Your task to perform on an android device: move an email to a new category in the gmail app Image 0: 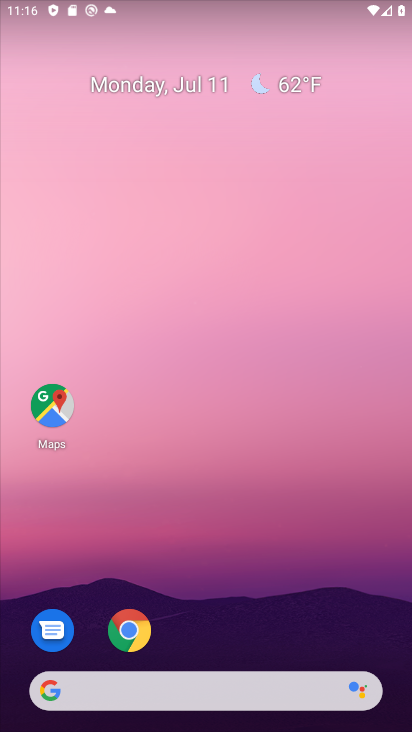
Step 0: drag from (309, 704) to (300, 30)
Your task to perform on an android device: move an email to a new category in the gmail app Image 1: 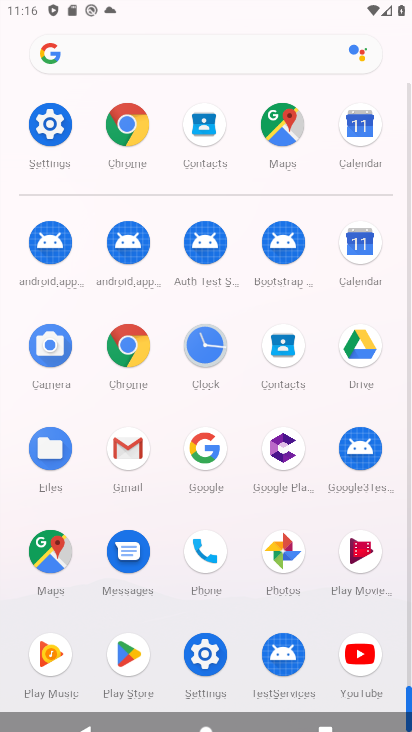
Step 1: click (130, 448)
Your task to perform on an android device: move an email to a new category in the gmail app Image 2: 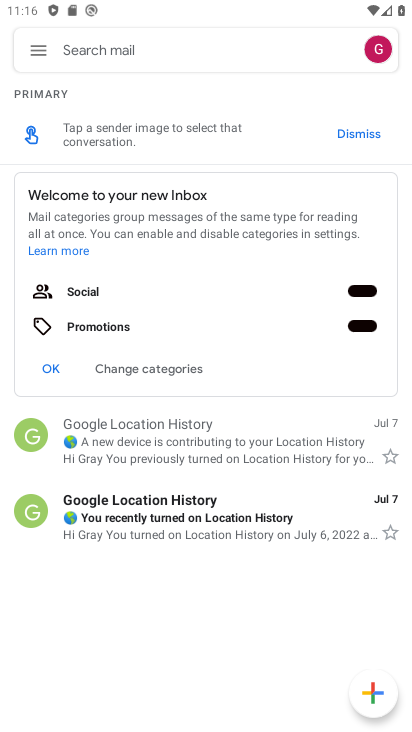
Step 2: click (40, 51)
Your task to perform on an android device: move an email to a new category in the gmail app Image 3: 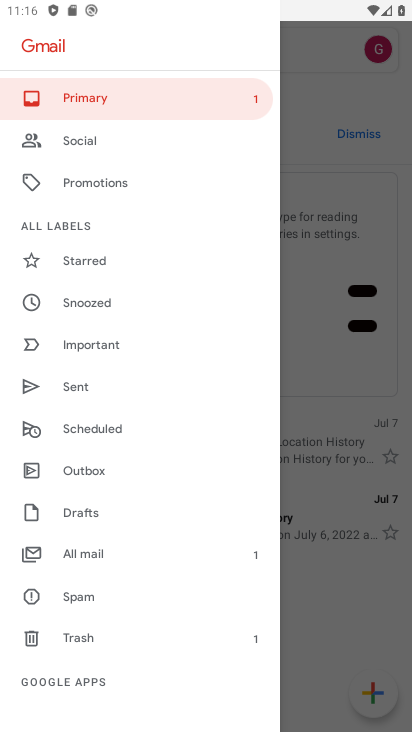
Step 3: click (336, 615)
Your task to perform on an android device: move an email to a new category in the gmail app Image 4: 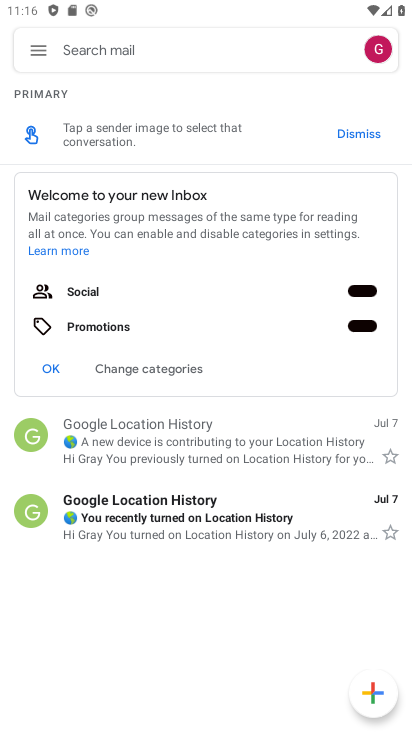
Step 4: click (304, 448)
Your task to perform on an android device: move an email to a new category in the gmail app Image 5: 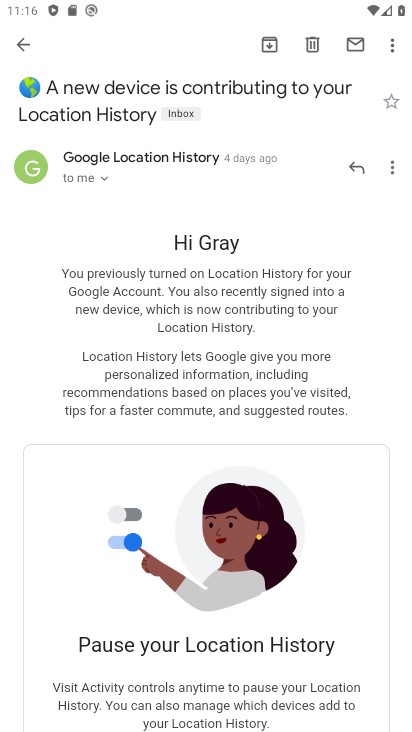
Step 5: click (391, 161)
Your task to perform on an android device: move an email to a new category in the gmail app Image 6: 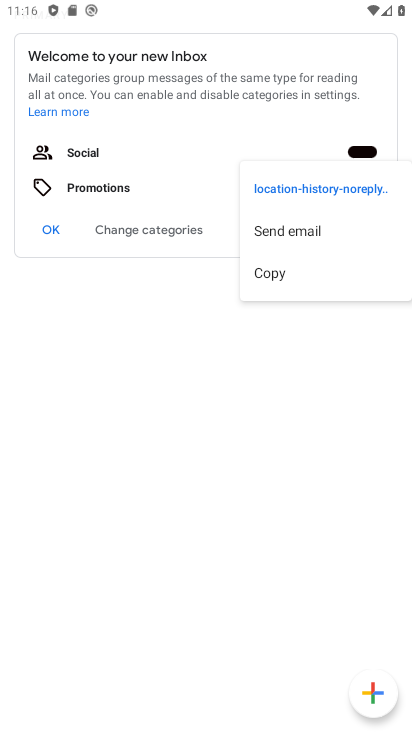
Step 6: click (330, 373)
Your task to perform on an android device: move an email to a new category in the gmail app Image 7: 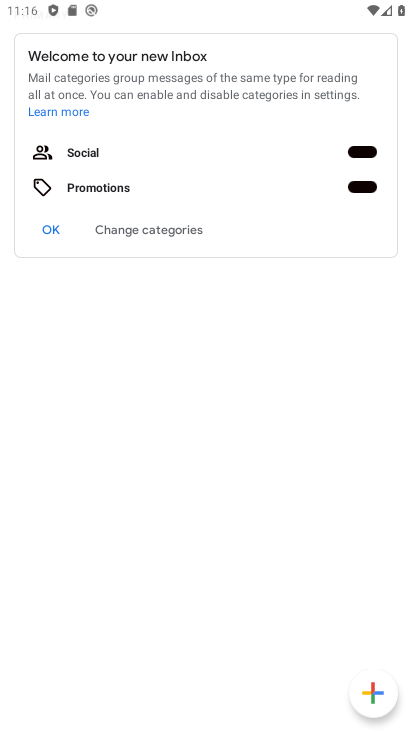
Step 7: task complete